Your task to perform on an android device: Show me the alarms in the clock app Image 0: 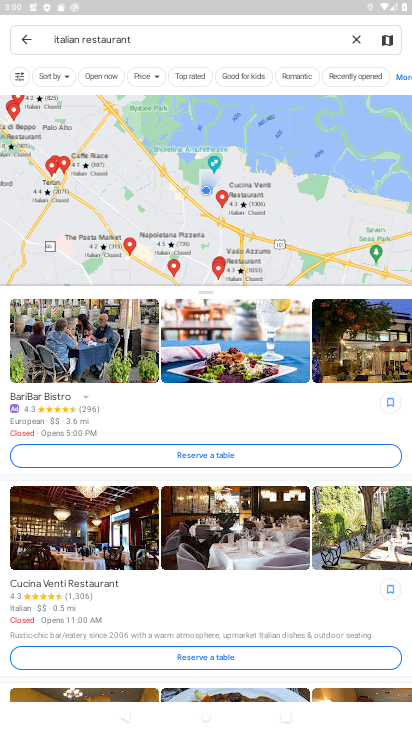
Step 0: press home button
Your task to perform on an android device: Show me the alarms in the clock app Image 1: 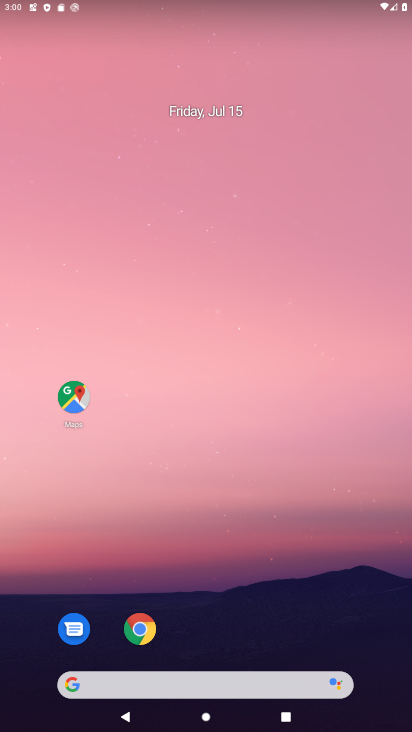
Step 1: click (262, 174)
Your task to perform on an android device: Show me the alarms in the clock app Image 2: 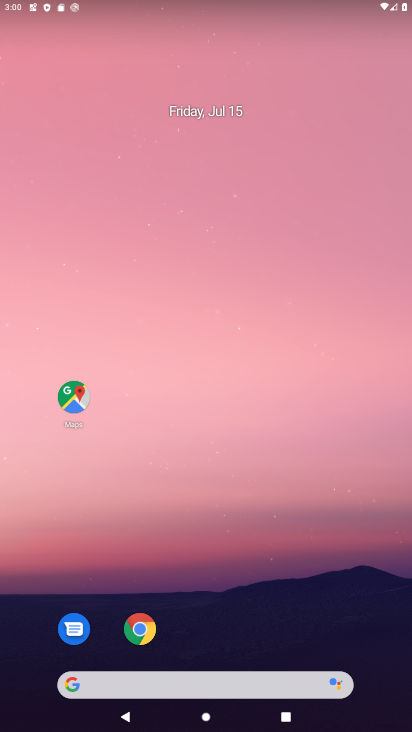
Step 2: drag from (240, 649) to (286, 347)
Your task to perform on an android device: Show me the alarms in the clock app Image 3: 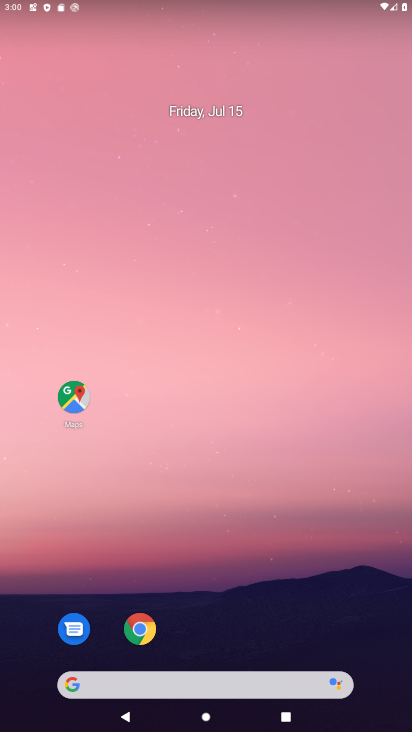
Step 3: drag from (298, 305) to (327, 167)
Your task to perform on an android device: Show me the alarms in the clock app Image 4: 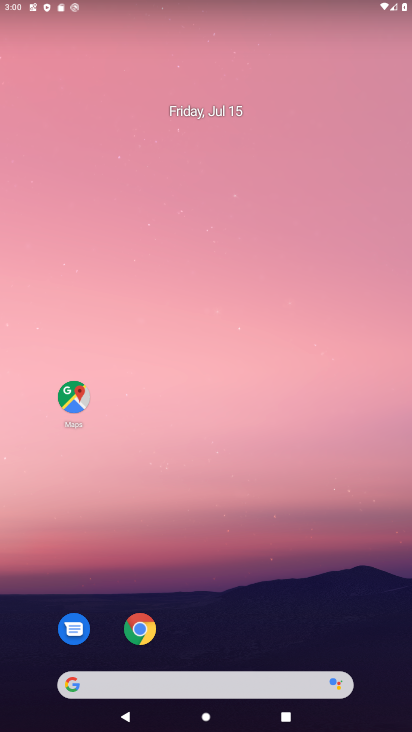
Step 4: drag from (206, 650) to (318, 58)
Your task to perform on an android device: Show me the alarms in the clock app Image 5: 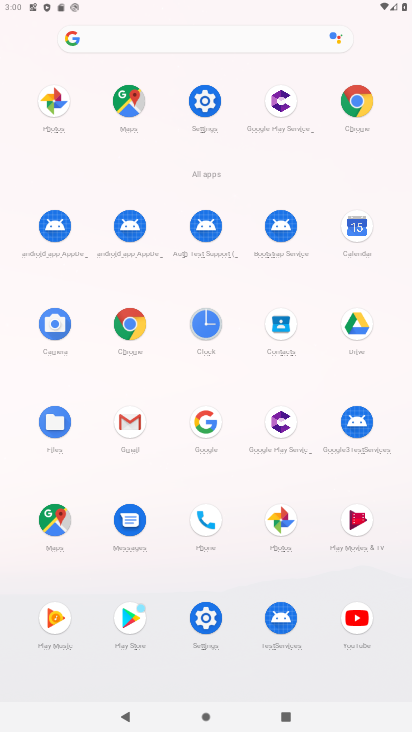
Step 5: click (213, 325)
Your task to perform on an android device: Show me the alarms in the clock app Image 6: 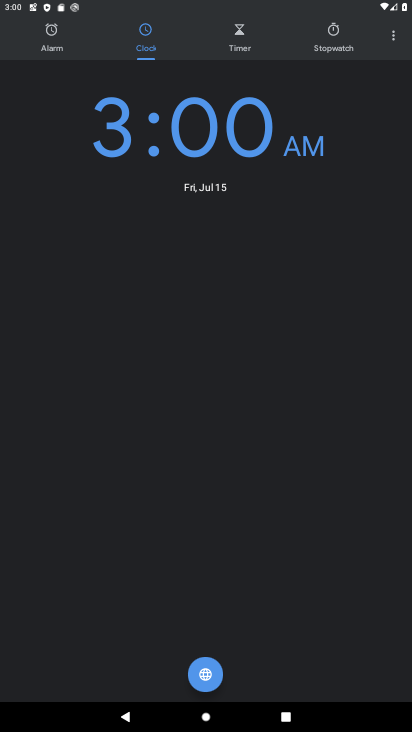
Step 6: click (34, 30)
Your task to perform on an android device: Show me the alarms in the clock app Image 7: 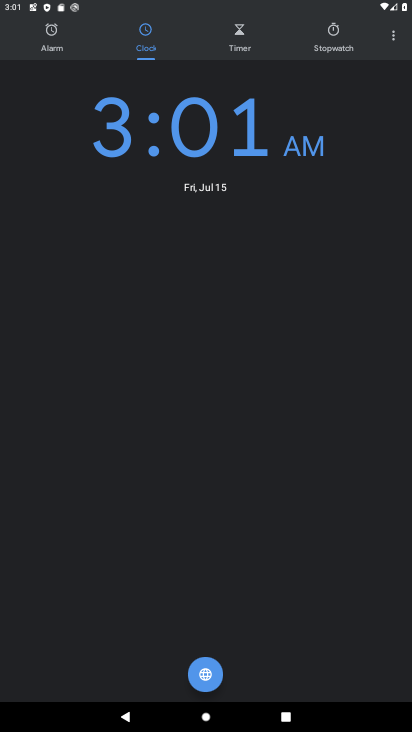
Step 7: click (69, 42)
Your task to perform on an android device: Show me the alarms in the clock app Image 8: 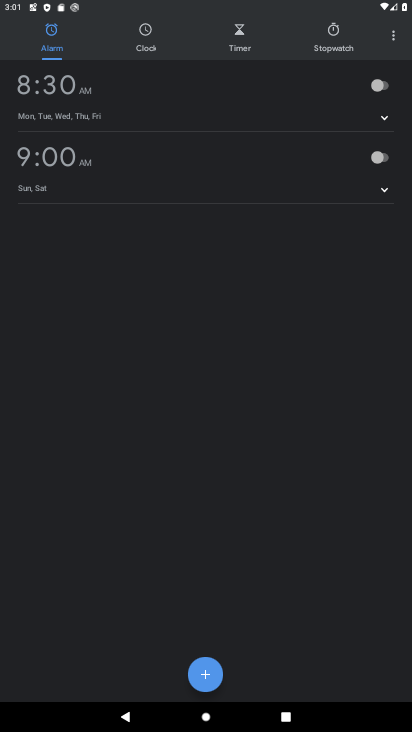
Step 8: task complete